Your task to perform on an android device: Show me recent news Image 0: 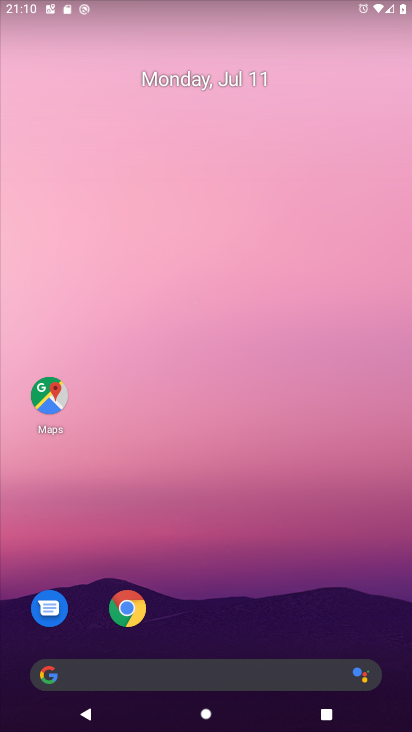
Step 0: drag from (254, 609) to (216, 147)
Your task to perform on an android device: Show me recent news Image 1: 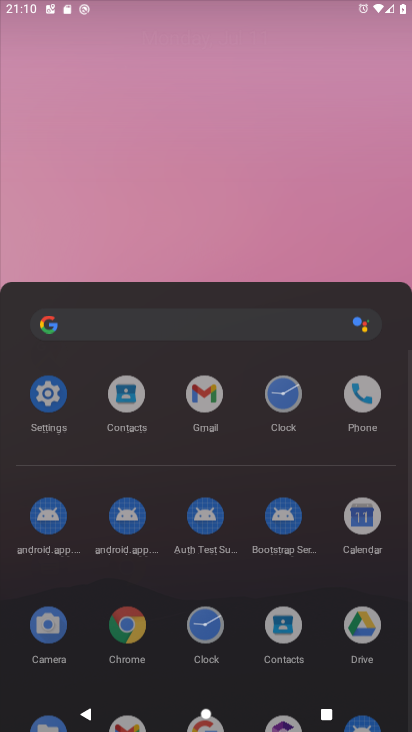
Step 1: click (216, 147)
Your task to perform on an android device: Show me recent news Image 2: 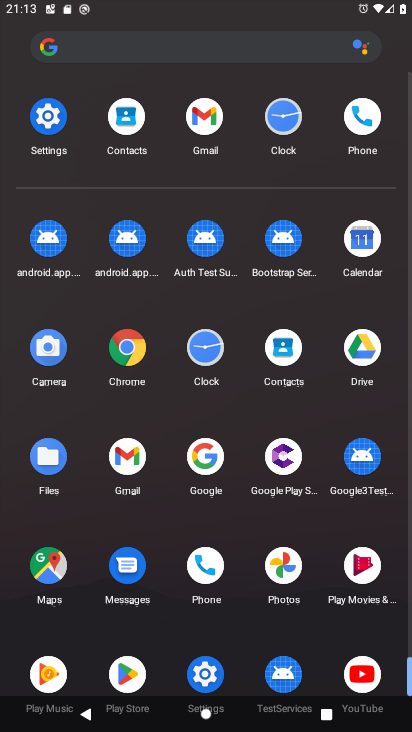
Step 2: click (205, 58)
Your task to perform on an android device: Show me recent news Image 3: 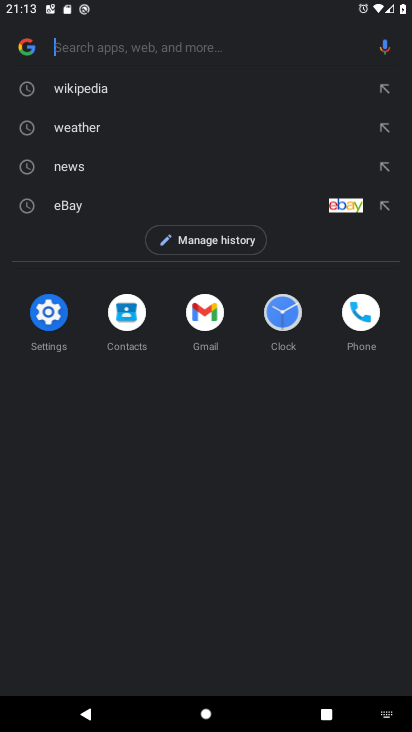
Step 3: click (172, 172)
Your task to perform on an android device: Show me recent news Image 4: 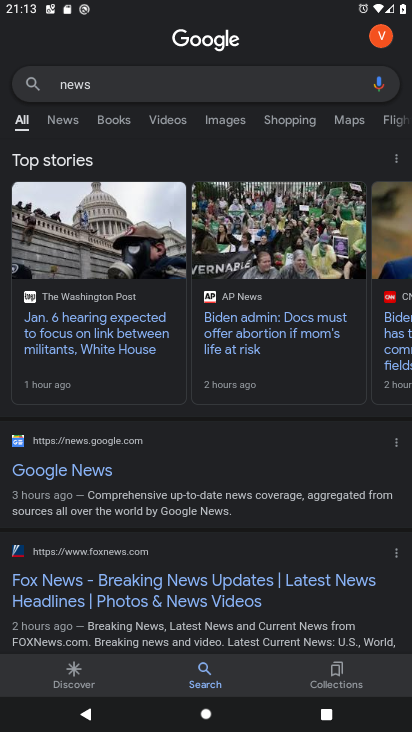
Step 4: task complete